Your task to perform on an android device: Open privacy settings Image 0: 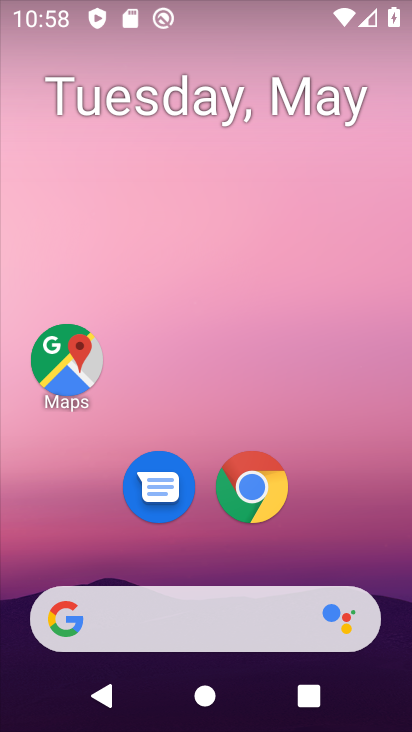
Step 0: drag from (309, 582) to (319, 282)
Your task to perform on an android device: Open privacy settings Image 1: 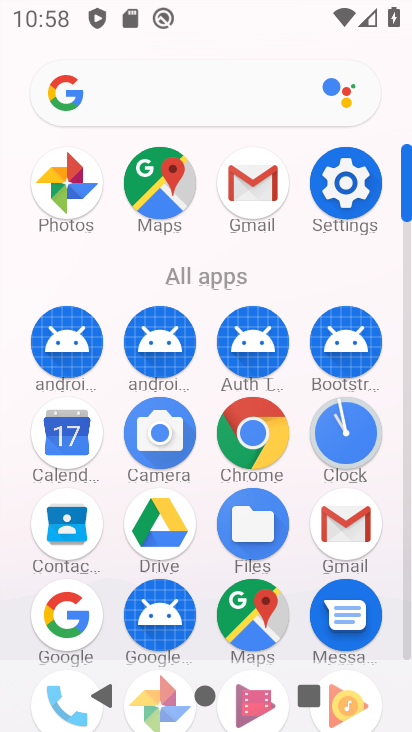
Step 1: click (350, 185)
Your task to perform on an android device: Open privacy settings Image 2: 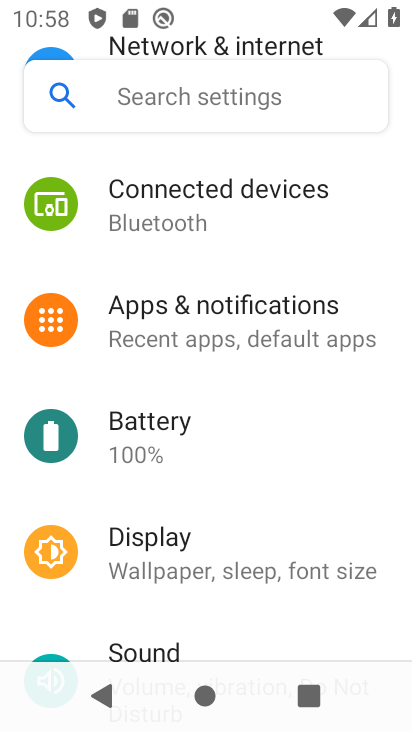
Step 2: drag from (226, 614) to (291, 234)
Your task to perform on an android device: Open privacy settings Image 3: 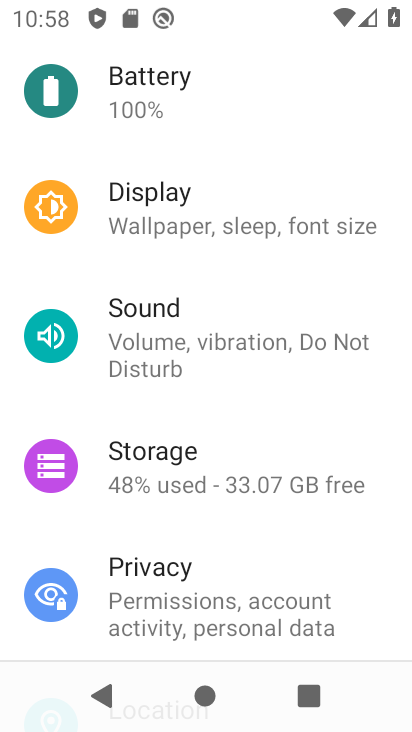
Step 3: click (159, 563)
Your task to perform on an android device: Open privacy settings Image 4: 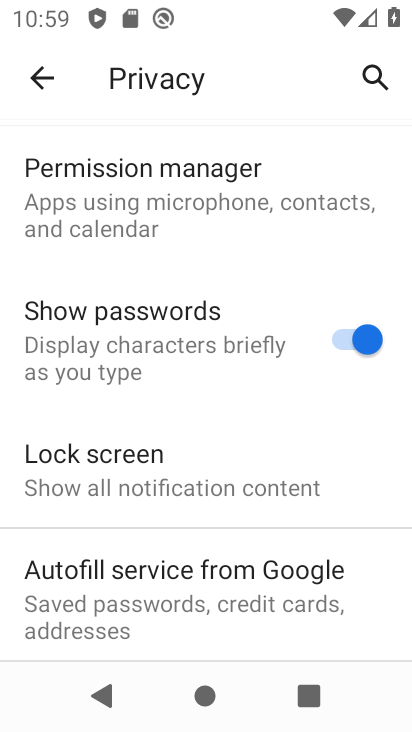
Step 4: task complete